Your task to perform on an android device: Go to privacy settings Image 0: 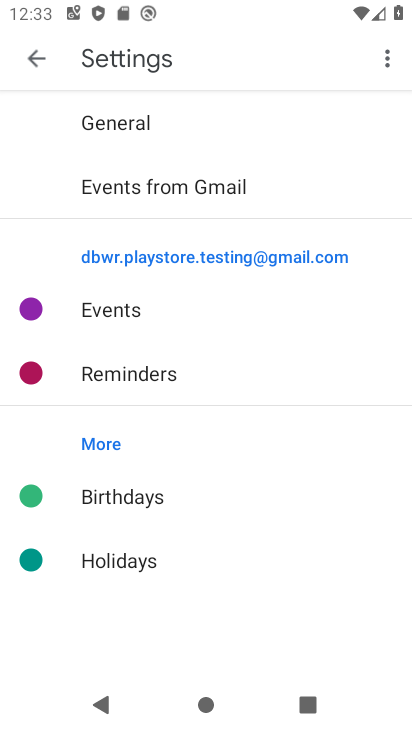
Step 0: press home button
Your task to perform on an android device: Go to privacy settings Image 1: 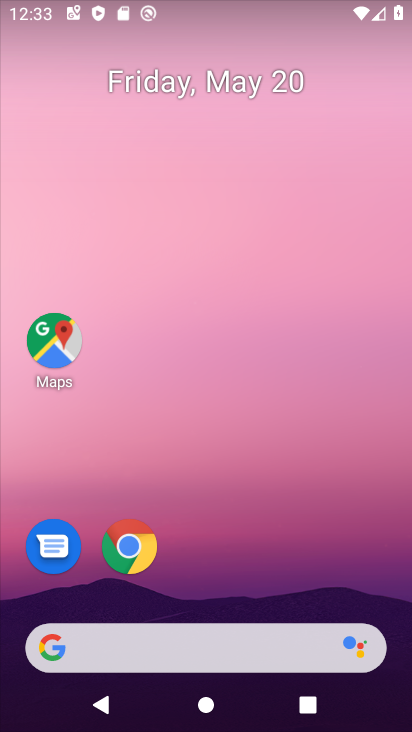
Step 1: drag from (275, 536) to (288, 46)
Your task to perform on an android device: Go to privacy settings Image 2: 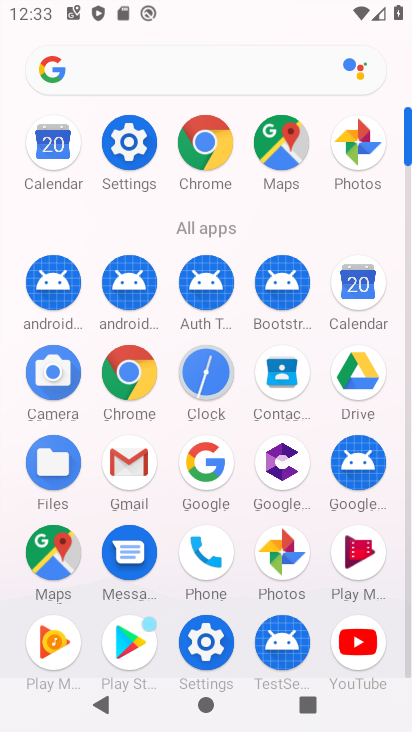
Step 2: click (135, 150)
Your task to perform on an android device: Go to privacy settings Image 3: 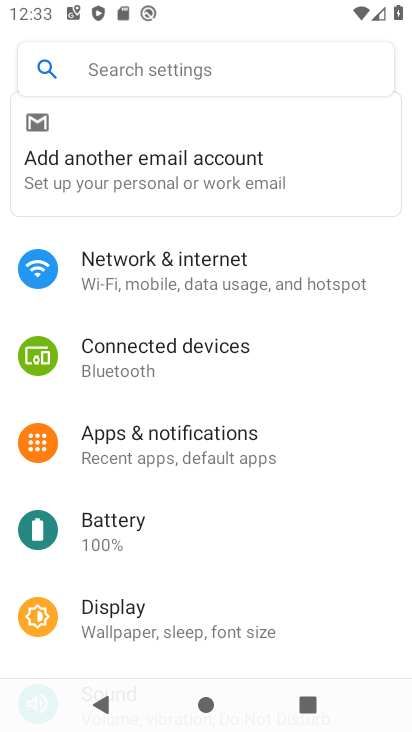
Step 3: drag from (201, 538) to (217, 154)
Your task to perform on an android device: Go to privacy settings Image 4: 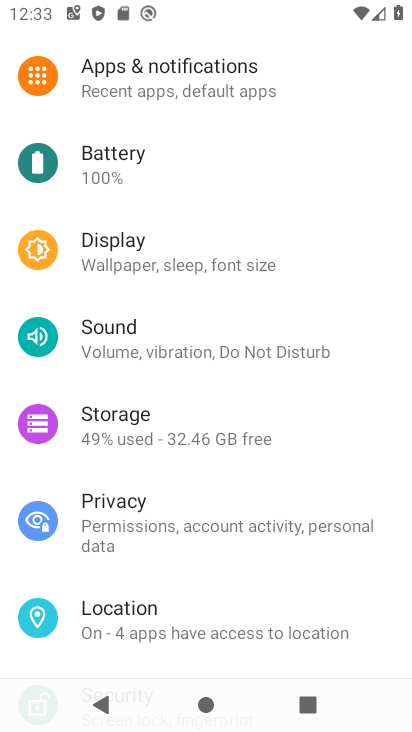
Step 4: drag from (210, 499) to (211, 431)
Your task to perform on an android device: Go to privacy settings Image 5: 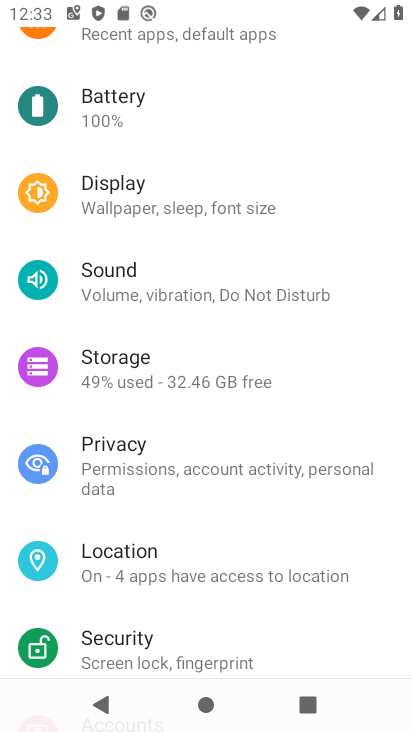
Step 5: click (213, 457)
Your task to perform on an android device: Go to privacy settings Image 6: 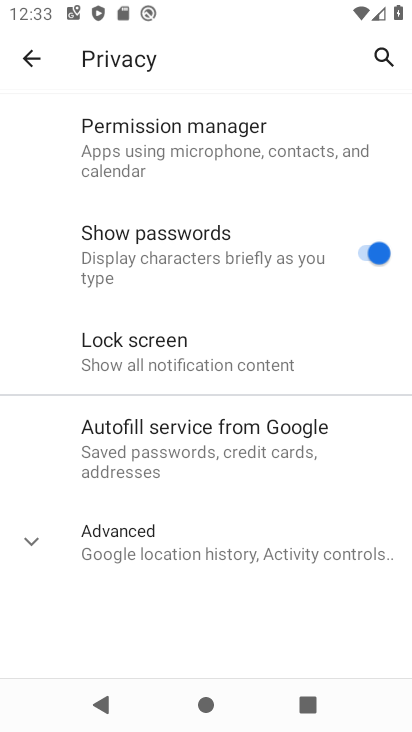
Step 6: task complete